Your task to perform on an android device: Open internet settings Image 0: 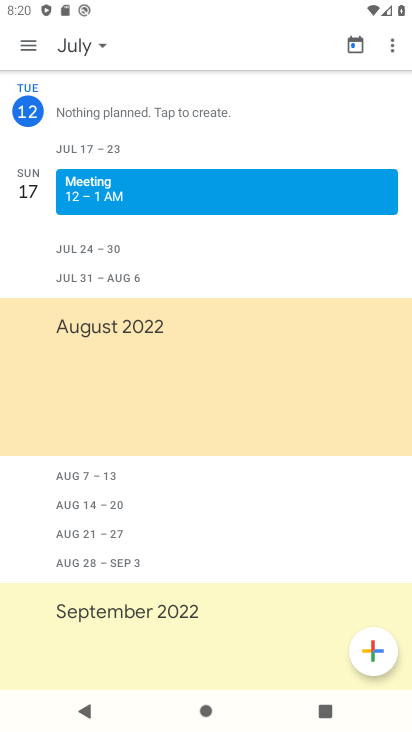
Step 0: press home button
Your task to perform on an android device: Open internet settings Image 1: 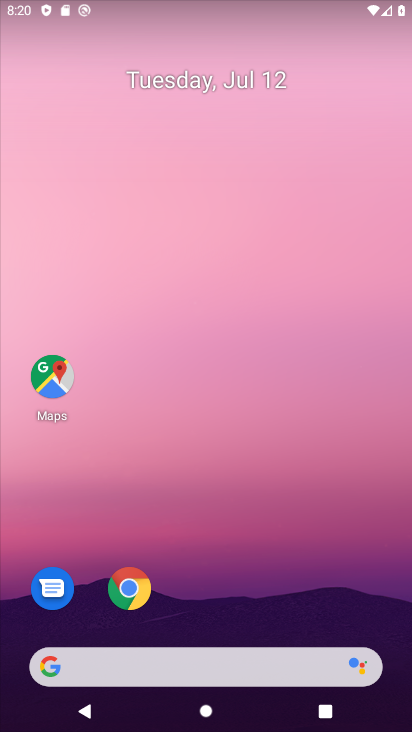
Step 1: drag from (179, 637) to (249, 168)
Your task to perform on an android device: Open internet settings Image 2: 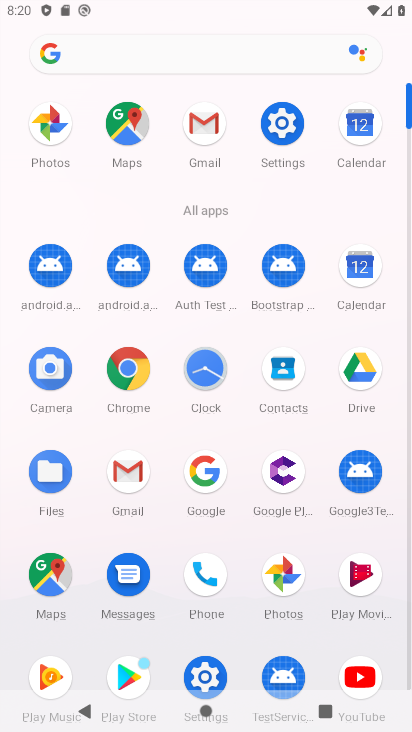
Step 2: click (204, 682)
Your task to perform on an android device: Open internet settings Image 3: 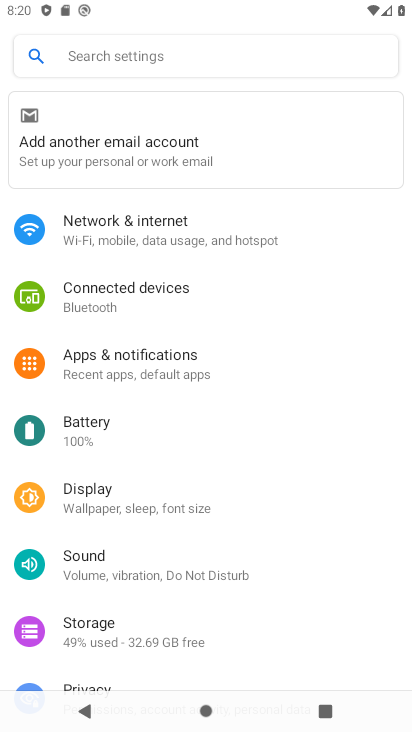
Step 3: click (241, 239)
Your task to perform on an android device: Open internet settings Image 4: 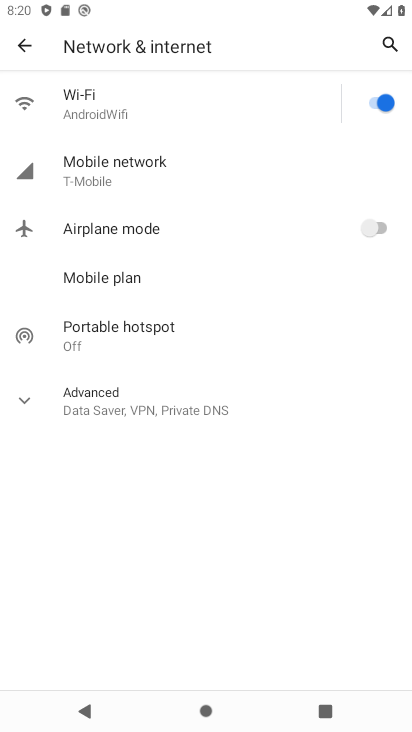
Step 4: click (186, 184)
Your task to perform on an android device: Open internet settings Image 5: 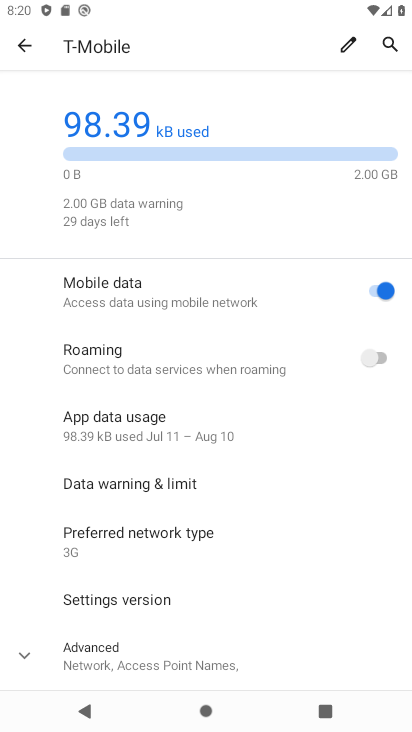
Step 5: task complete